Your task to perform on an android device: Show me popular videos on Youtube Image 0: 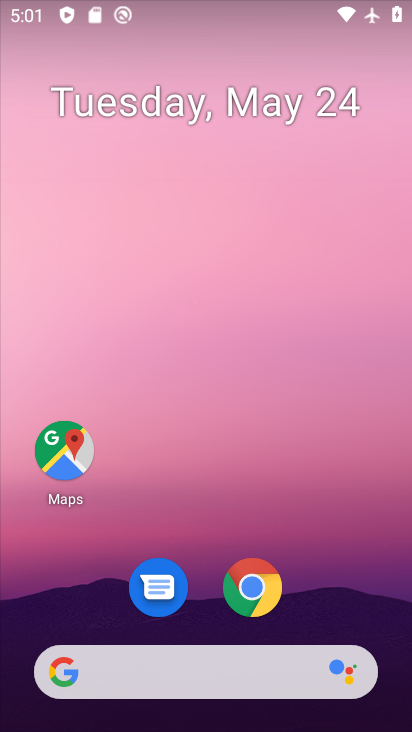
Step 0: drag from (284, 195) to (226, 4)
Your task to perform on an android device: Show me popular videos on Youtube Image 1: 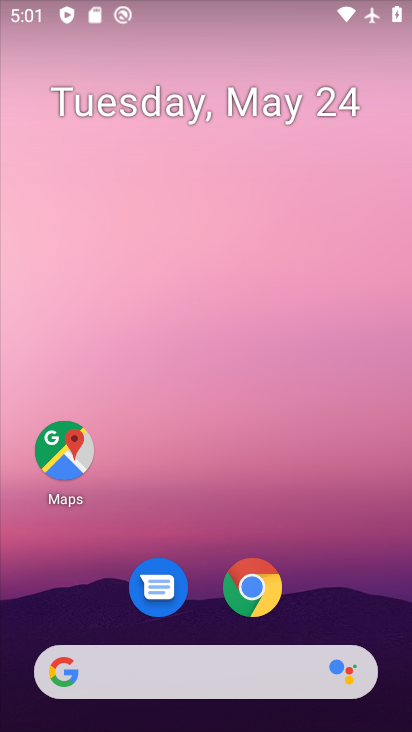
Step 1: drag from (332, 591) to (260, 14)
Your task to perform on an android device: Show me popular videos on Youtube Image 2: 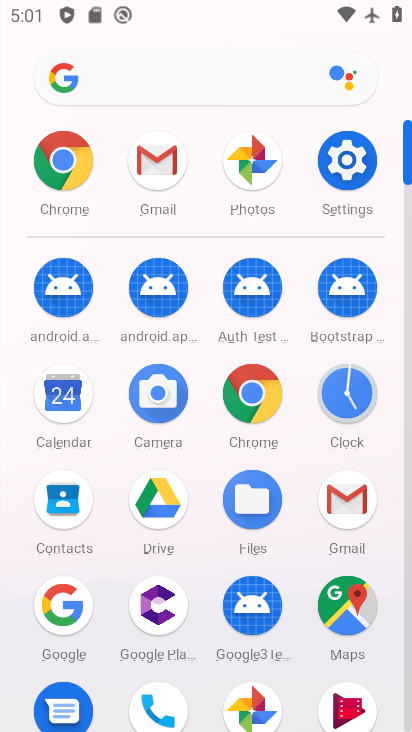
Step 2: drag from (304, 665) to (299, 328)
Your task to perform on an android device: Show me popular videos on Youtube Image 3: 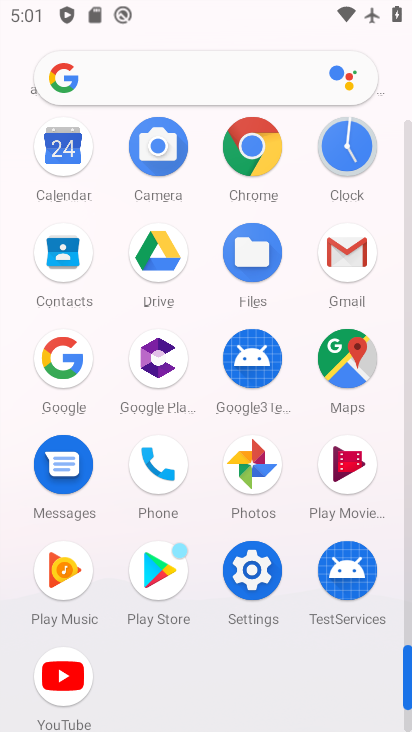
Step 3: click (63, 676)
Your task to perform on an android device: Show me popular videos on Youtube Image 4: 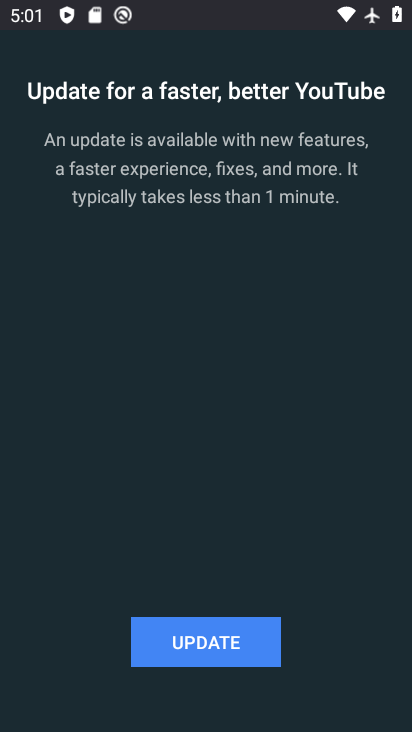
Step 4: click (233, 636)
Your task to perform on an android device: Show me popular videos on Youtube Image 5: 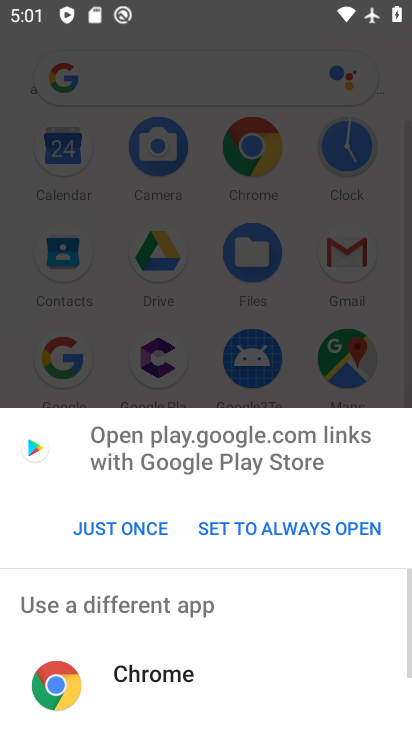
Step 5: click (121, 529)
Your task to perform on an android device: Show me popular videos on Youtube Image 6: 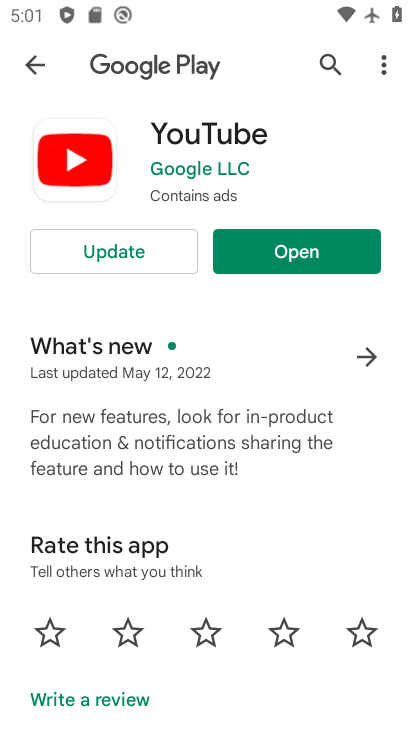
Step 6: click (139, 245)
Your task to perform on an android device: Show me popular videos on Youtube Image 7: 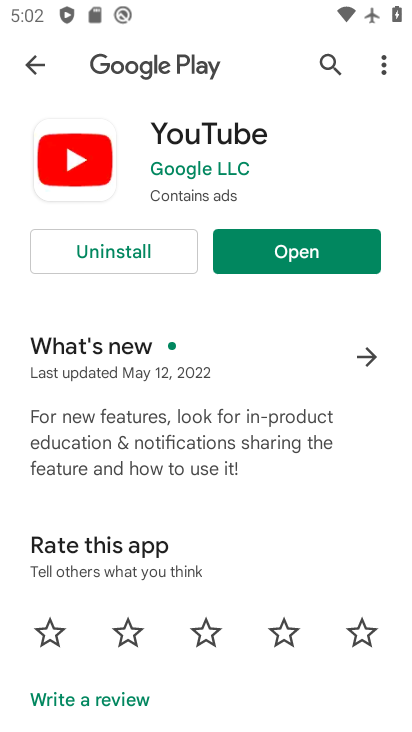
Step 7: click (312, 244)
Your task to perform on an android device: Show me popular videos on Youtube Image 8: 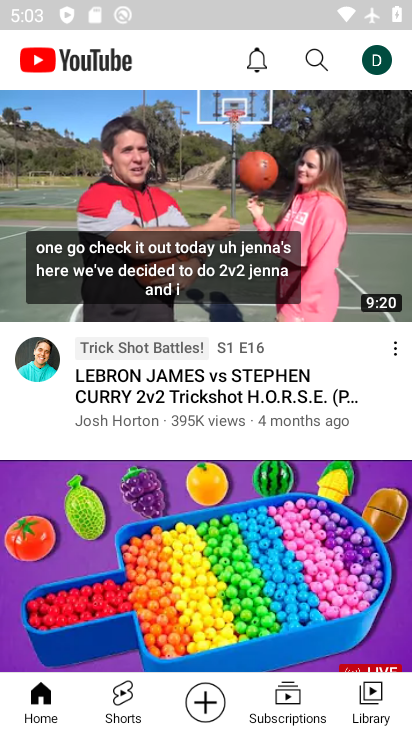
Step 8: drag from (138, 259) to (191, 564)
Your task to perform on an android device: Show me popular videos on Youtube Image 9: 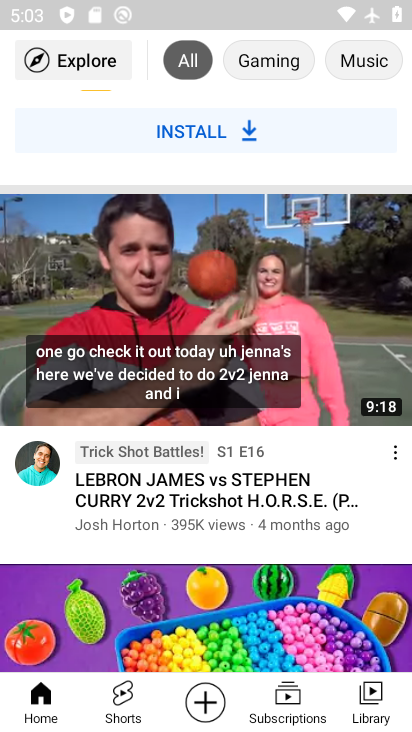
Step 9: click (72, 58)
Your task to perform on an android device: Show me popular videos on Youtube Image 10: 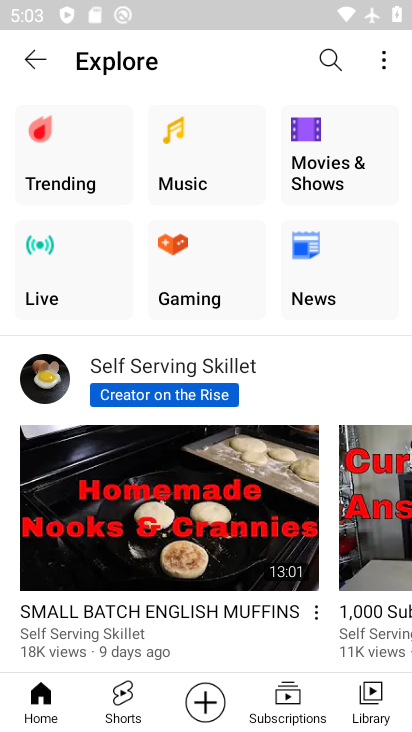
Step 10: click (74, 181)
Your task to perform on an android device: Show me popular videos on Youtube Image 11: 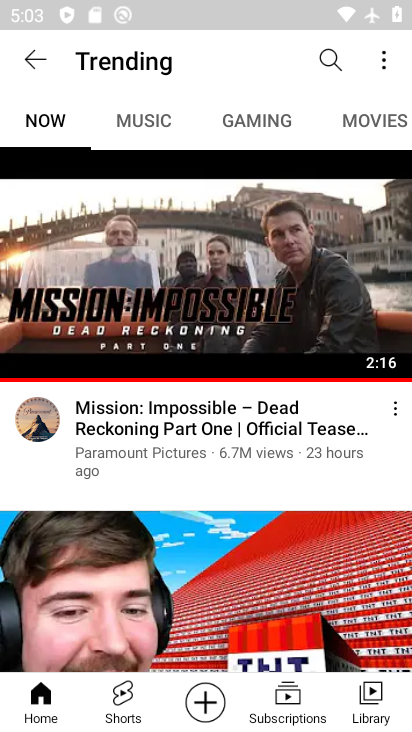
Step 11: task complete